Your task to perform on an android device: Open Chrome and go to the settings page Image 0: 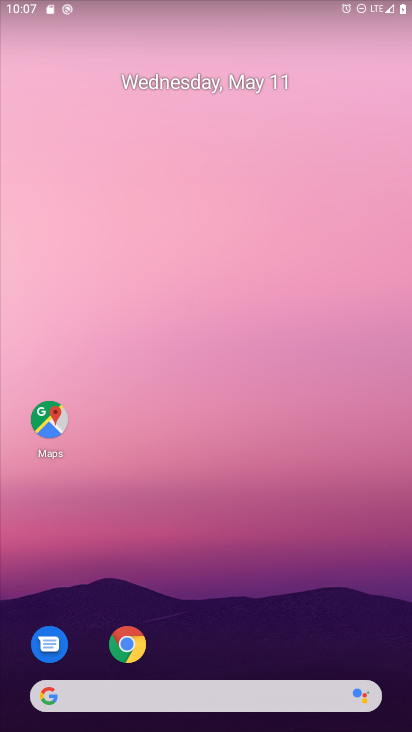
Step 0: click (126, 645)
Your task to perform on an android device: Open Chrome and go to the settings page Image 1: 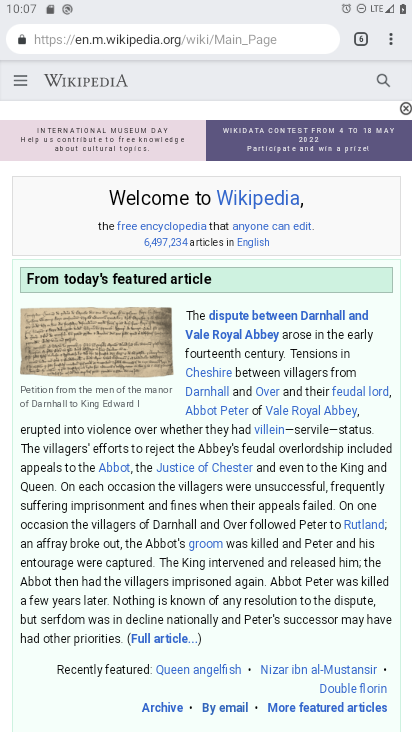
Step 1: click (394, 33)
Your task to perform on an android device: Open Chrome and go to the settings page Image 2: 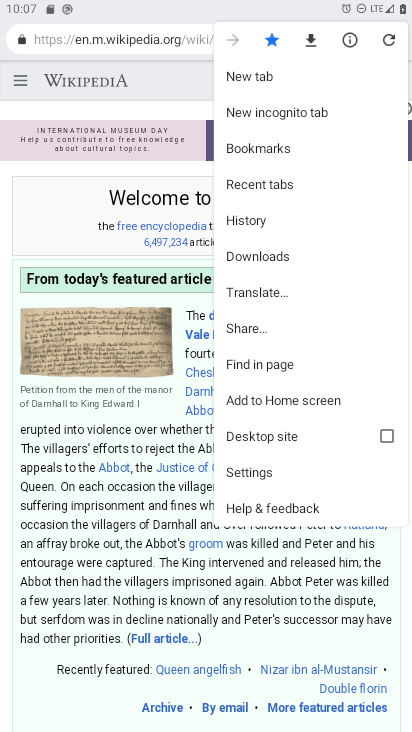
Step 2: click (255, 466)
Your task to perform on an android device: Open Chrome and go to the settings page Image 3: 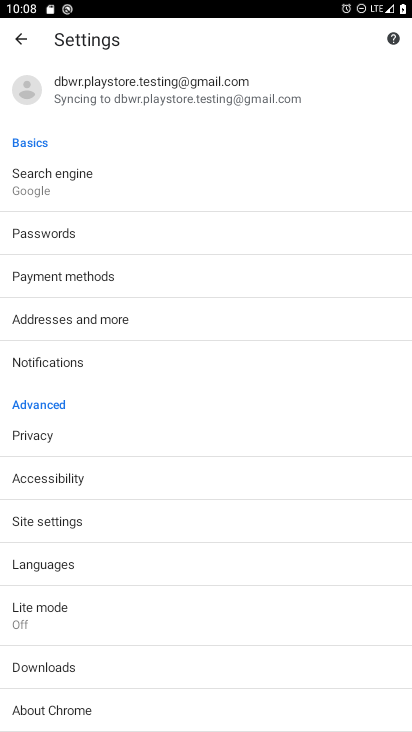
Step 3: task complete